Your task to perform on an android device: Go to location settings Image 0: 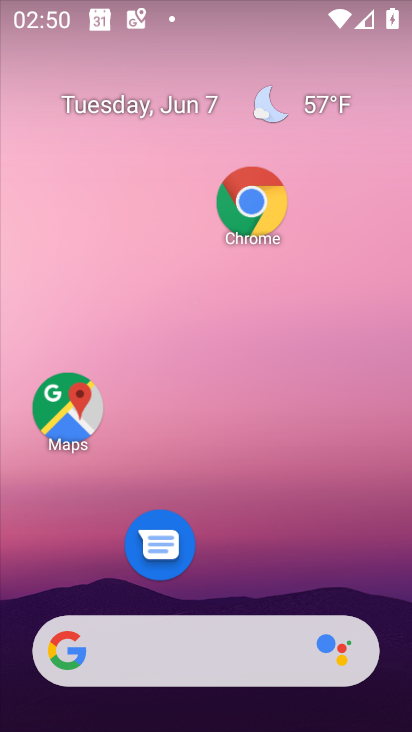
Step 0: drag from (204, 600) to (230, 137)
Your task to perform on an android device: Go to location settings Image 1: 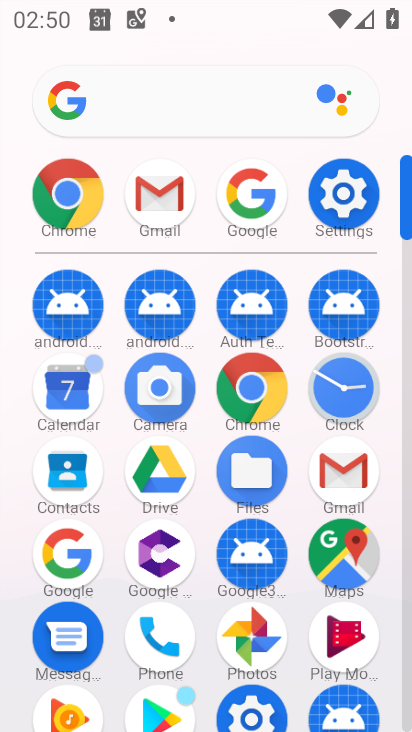
Step 1: click (351, 183)
Your task to perform on an android device: Go to location settings Image 2: 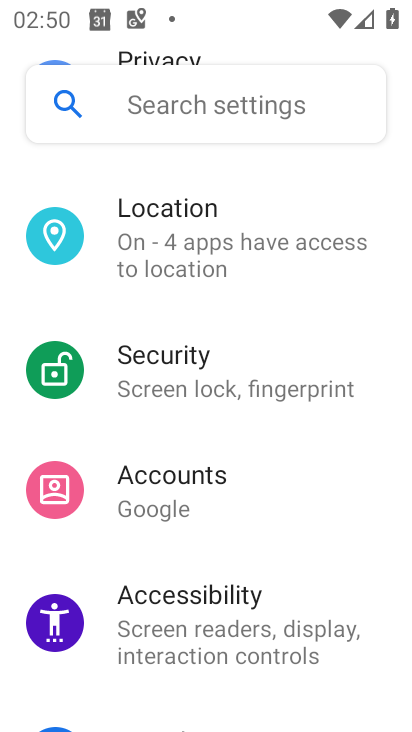
Step 2: click (187, 247)
Your task to perform on an android device: Go to location settings Image 3: 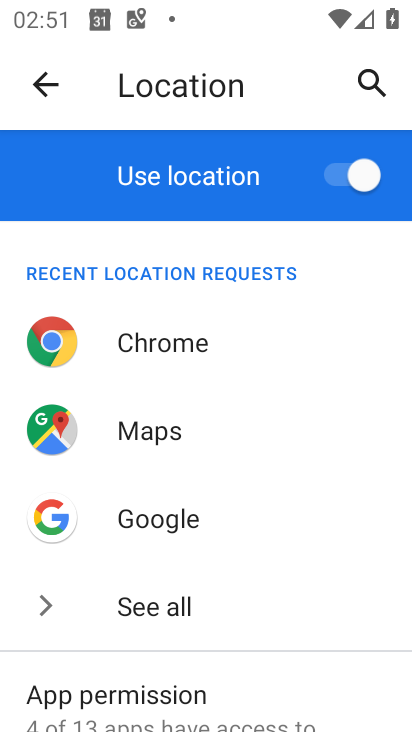
Step 3: task complete